Your task to perform on an android device: Open calendar and show me the first week of next month Image 0: 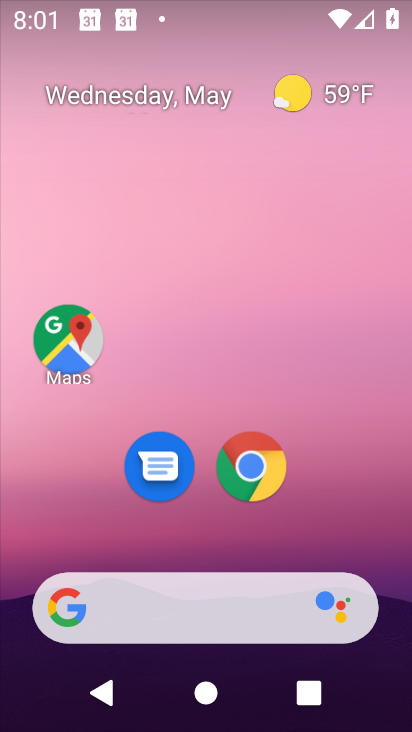
Step 0: drag from (335, 578) to (340, 258)
Your task to perform on an android device: Open calendar and show me the first week of next month Image 1: 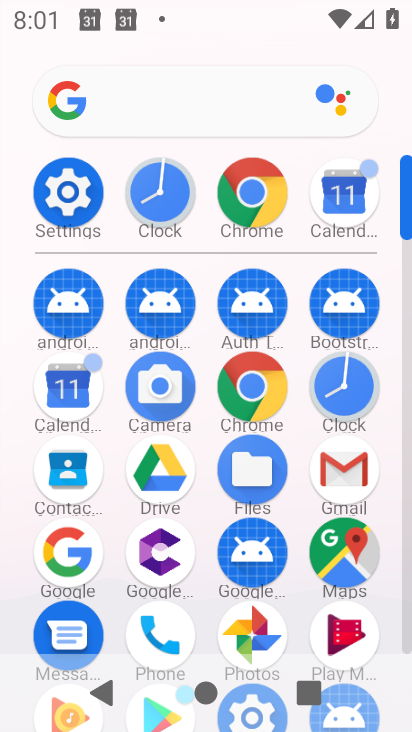
Step 1: click (69, 386)
Your task to perform on an android device: Open calendar and show me the first week of next month Image 2: 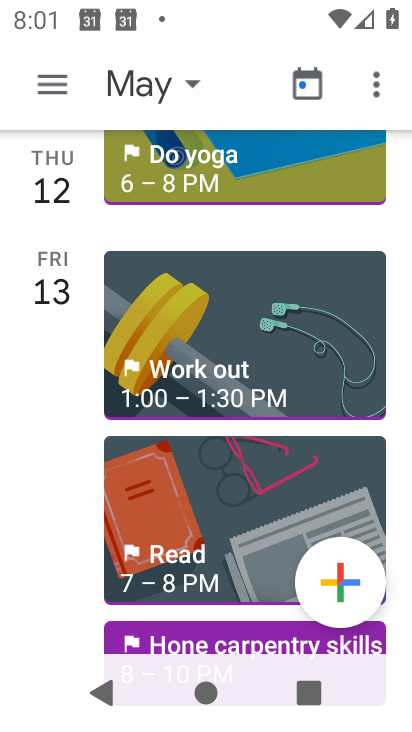
Step 2: click (37, 84)
Your task to perform on an android device: Open calendar and show me the first week of next month Image 3: 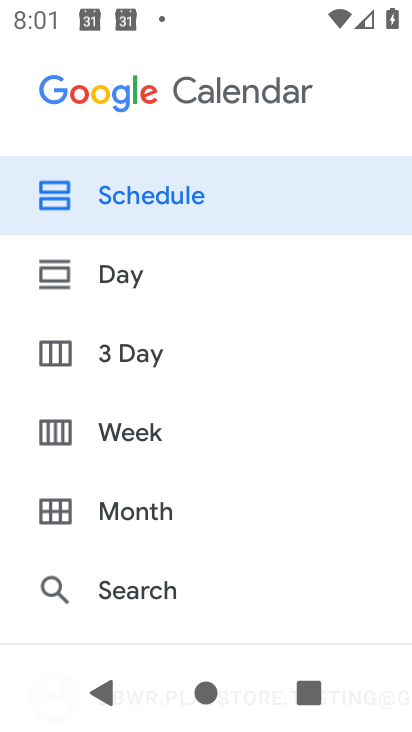
Step 3: click (136, 509)
Your task to perform on an android device: Open calendar and show me the first week of next month Image 4: 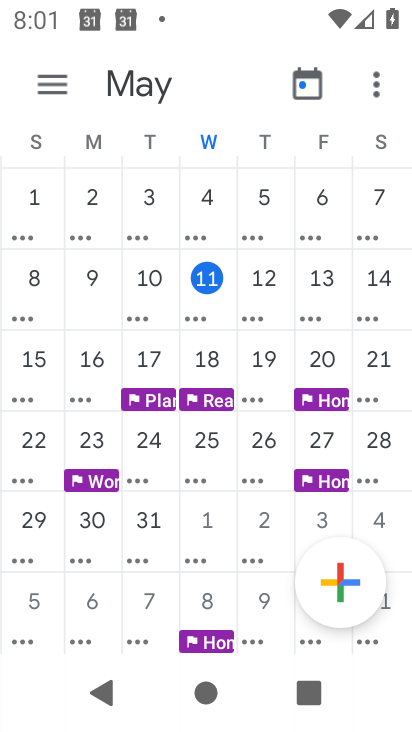
Step 4: click (360, 361)
Your task to perform on an android device: Open calendar and show me the first week of next month Image 5: 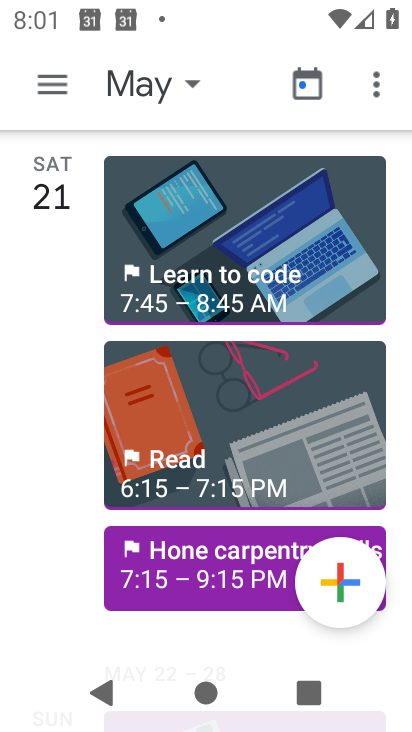
Step 5: click (47, 83)
Your task to perform on an android device: Open calendar and show me the first week of next month Image 6: 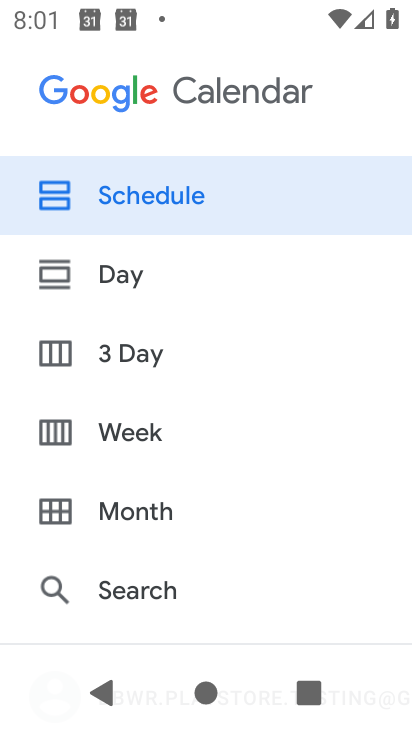
Step 6: click (135, 516)
Your task to perform on an android device: Open calendar and show me the first week of next month Image 7: 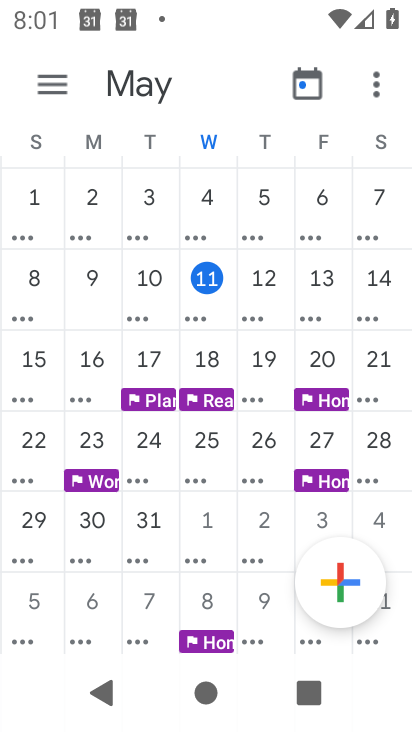
Step 7: task complete